Your task to perform on an android device: find which apps use the phone's location Image 0: 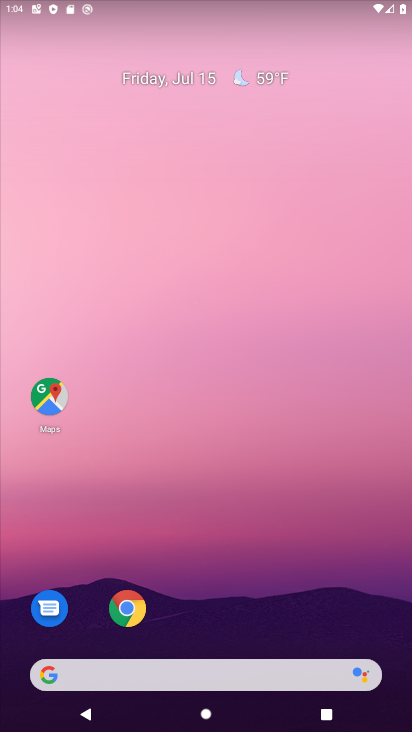
Step 0: drag from (238, 538) to (238, 133)
Your task to perform on an android device: find which apps use the phone's location Image 1: 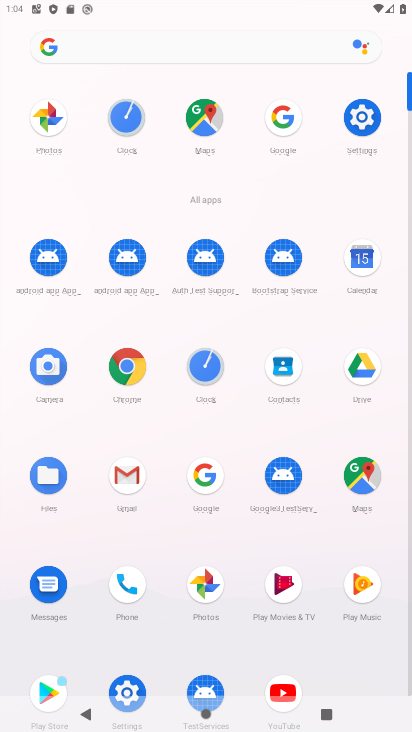
Step 1: click (126, 687)
Your task to perform on an android device: find which apps use the phone's location Image 2: 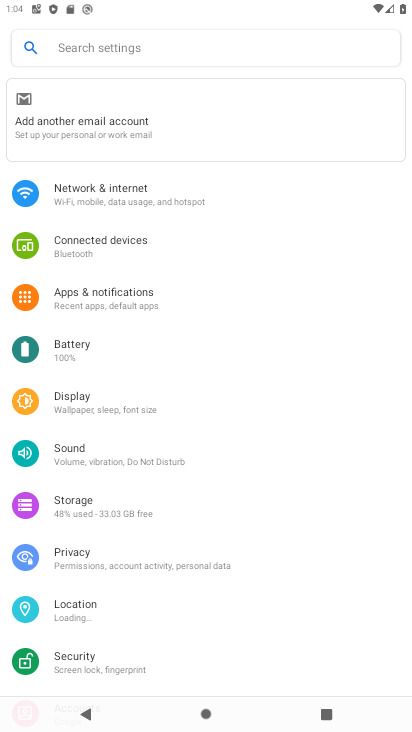
Step 2: drag from (97, 663) to (84, 240)
Your task to perform on an android device: find which apps use the phone's location Image 3: 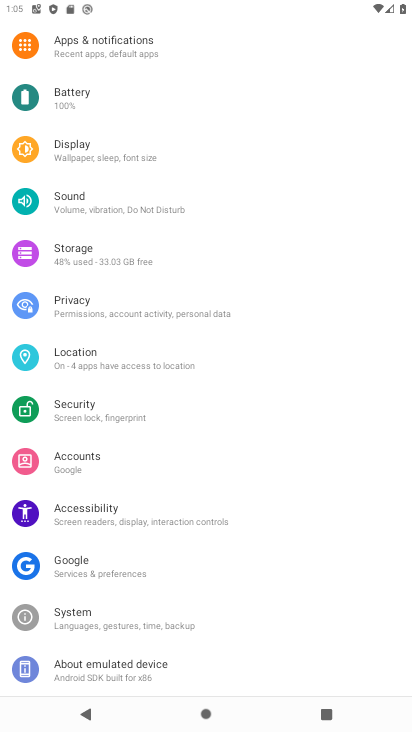
Step 3: click (99, 355)
Your task to perform on an android device: find which apps use the phone's location Image 4: 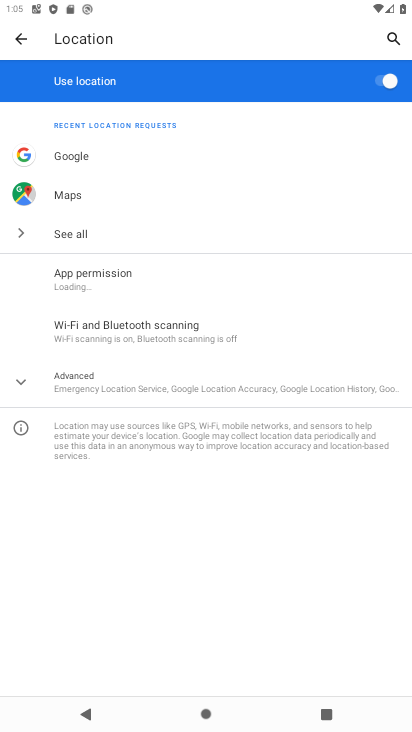
Step 4: click (93, 378)
Your task to perform on an android device: find which apps use the phone's location Image 5: 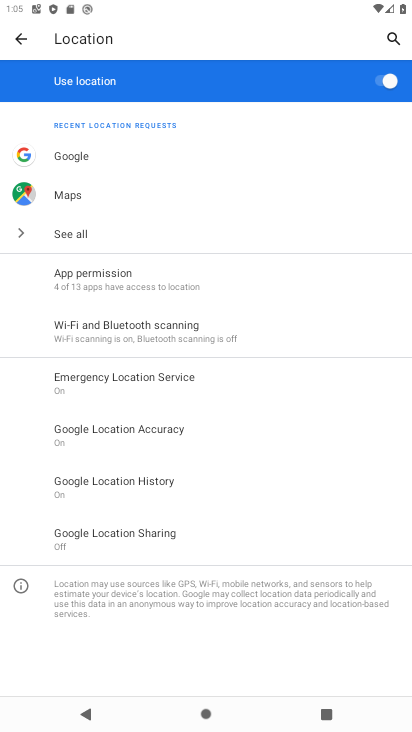
Step 5: click (66, 276)
Your task to perform on an android device: find which apps use the phone's location Image 6: 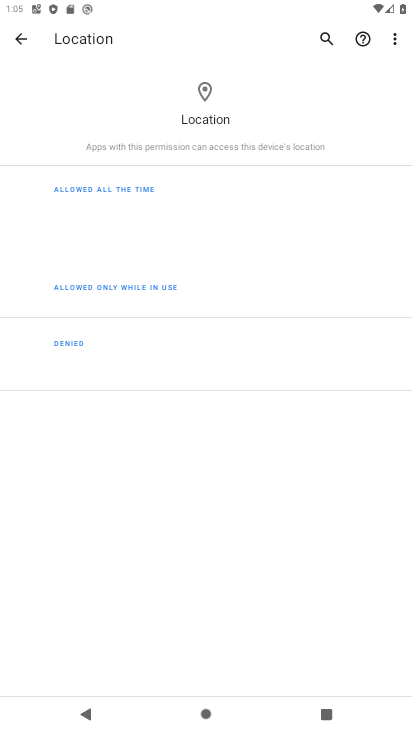
Step 6: task complete